Your task to perform on an android device: delete location history Image 0: 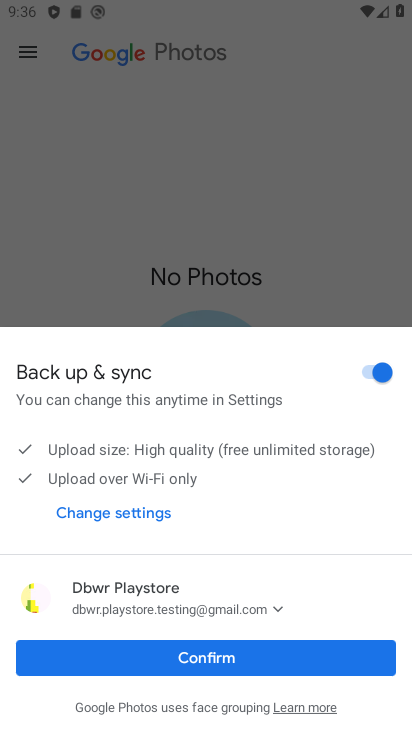
Step 0: click (277, 645)
Your task to perform on an android device: delete location history Image 1: 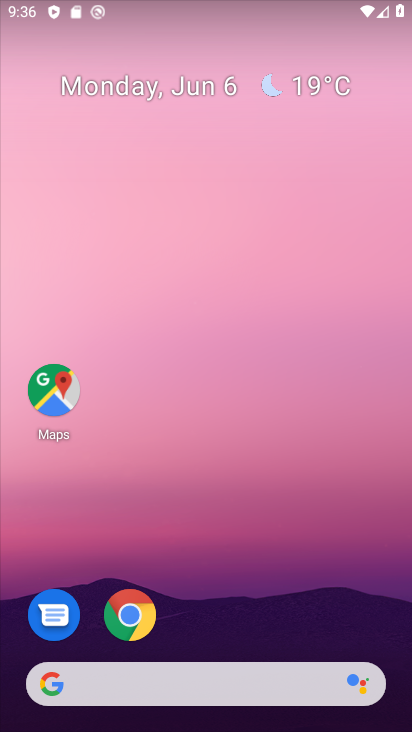
Step 1: drag from (303, 595) to (271, 1)
Your task to perform on an android device: delete location history Image 2: 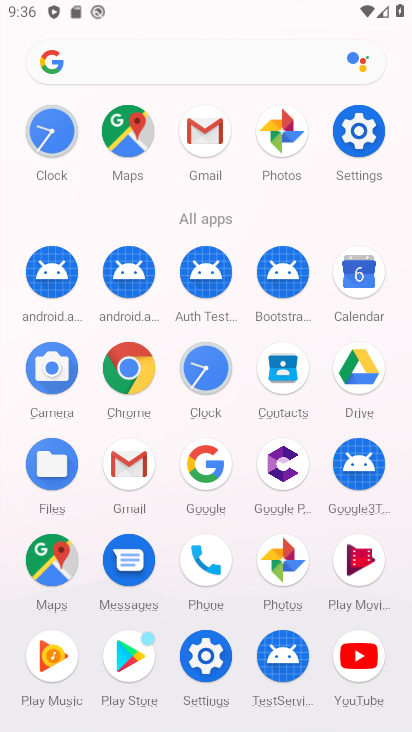
Step 2: click (352, 135)
Your task to perform on an android device: delete location history Image 3: 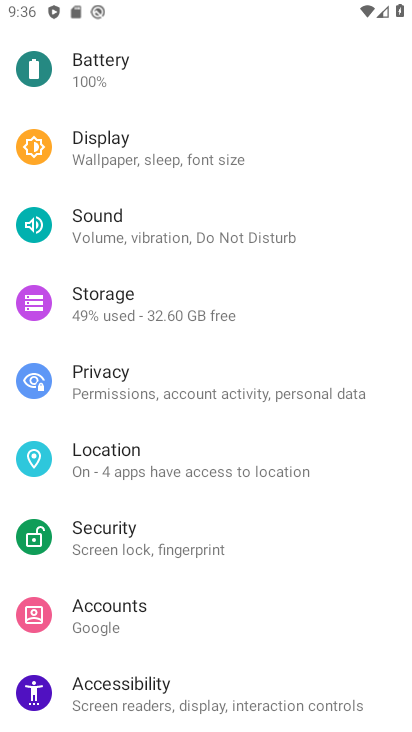
Step 3: click (187, 455)
Your task to perform on an android device: delete location history Image 4: 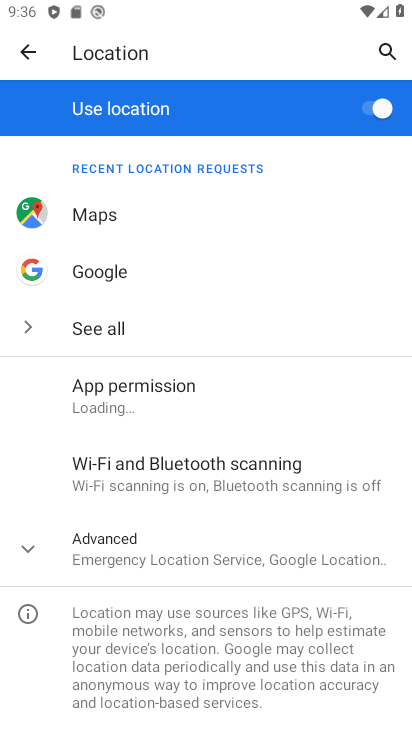
Step 4: task complete